Your task to perform on an android device: add a contact in the contacts app Image 0: 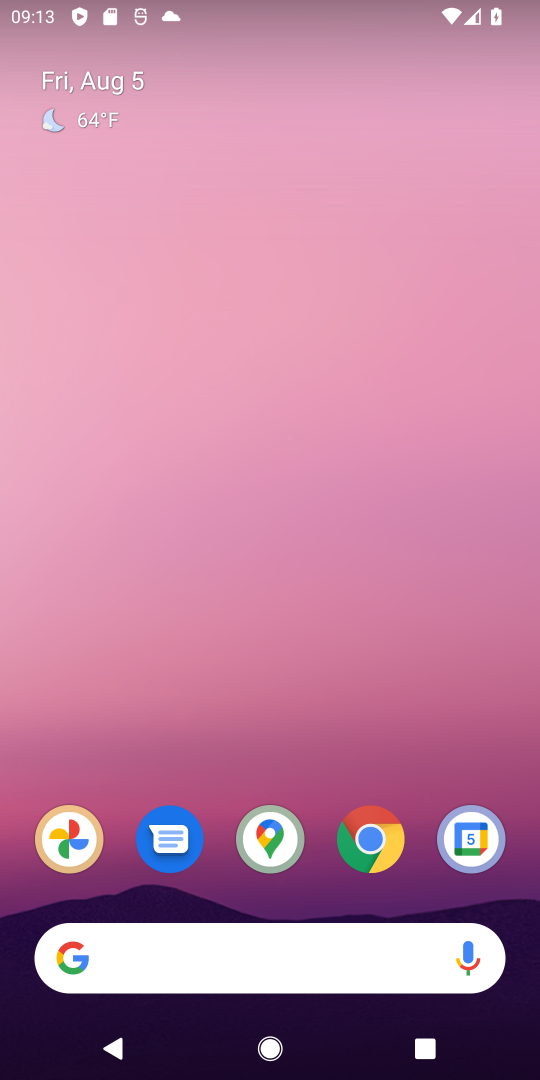
Step 0: drag from (308, 777) to (305, 10)
Your task to perform on an android device: add a contact in the contacts app Image 1: 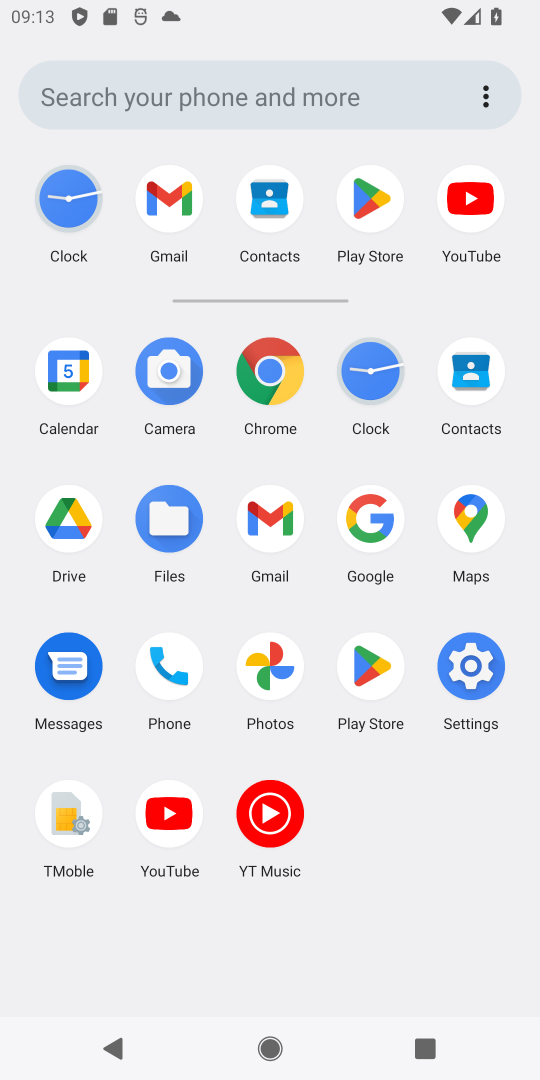
Step 1: click (476, 373)
Your task to perform on an android device: add a contact in the contacts app Image 2: 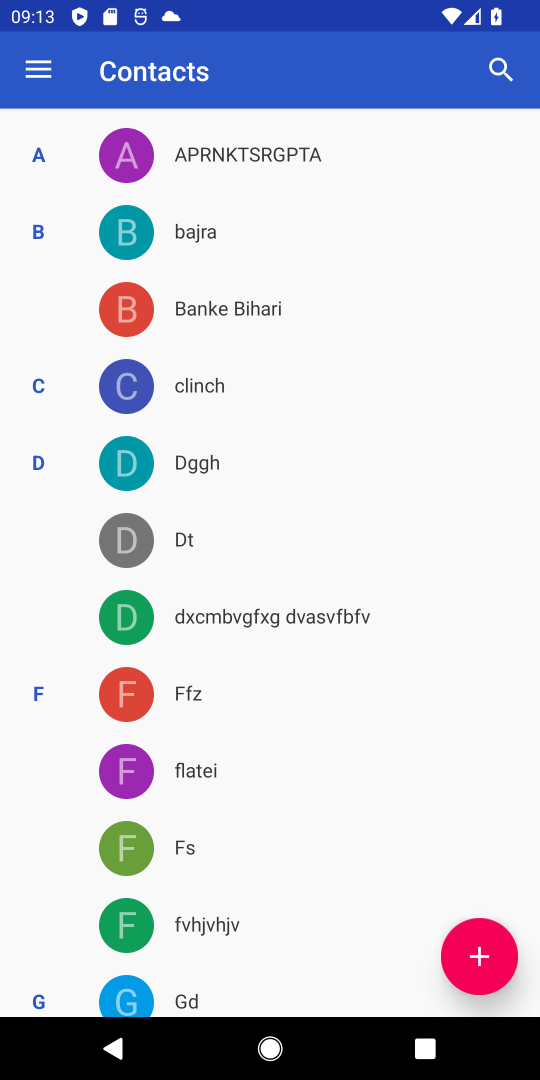
Step 2: click (480, 945)
Your task to perform on an android device: add a contact in the contacts app Image 3: 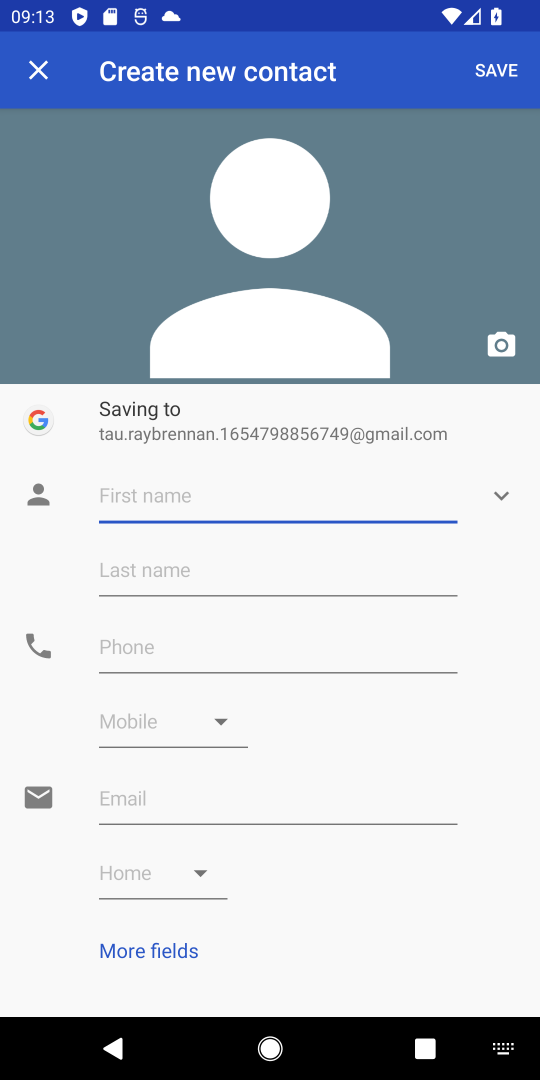
Step 3: type "uiiuui"
Your task to perform on an android device: add a contact in the contacts app Image 4: 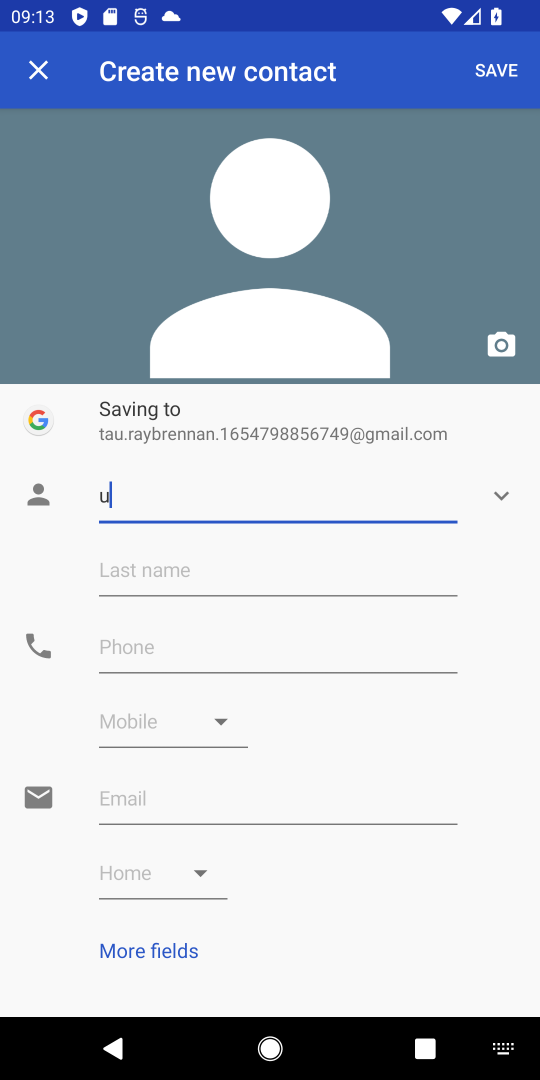
Step 4: type ""
Your task to perform on an android device: add a contact in the contacts app Image 5: 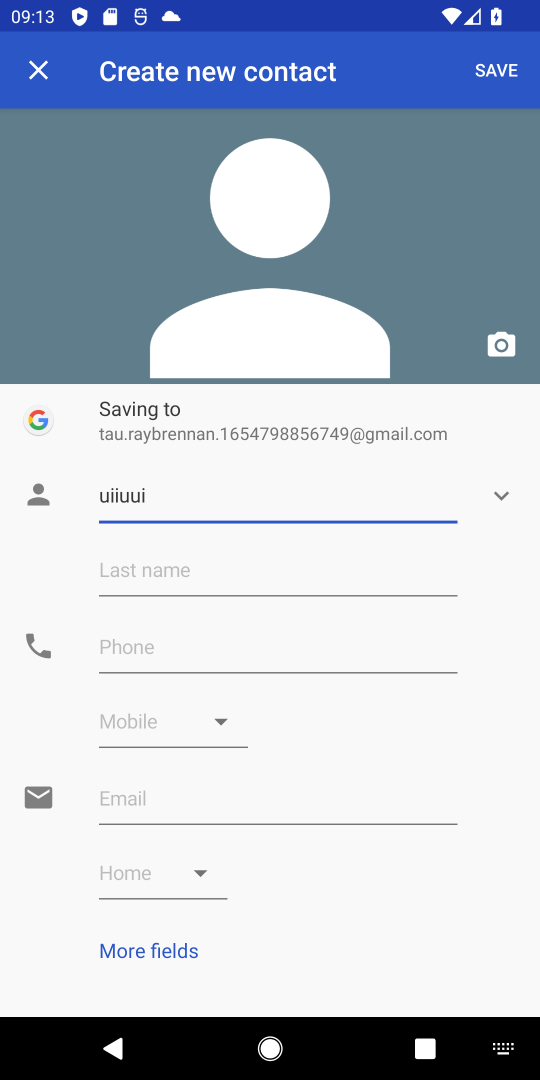
Step 5: click (175, 664)
Your task to perform on an android device: add a contact in the contacts app Image 6: 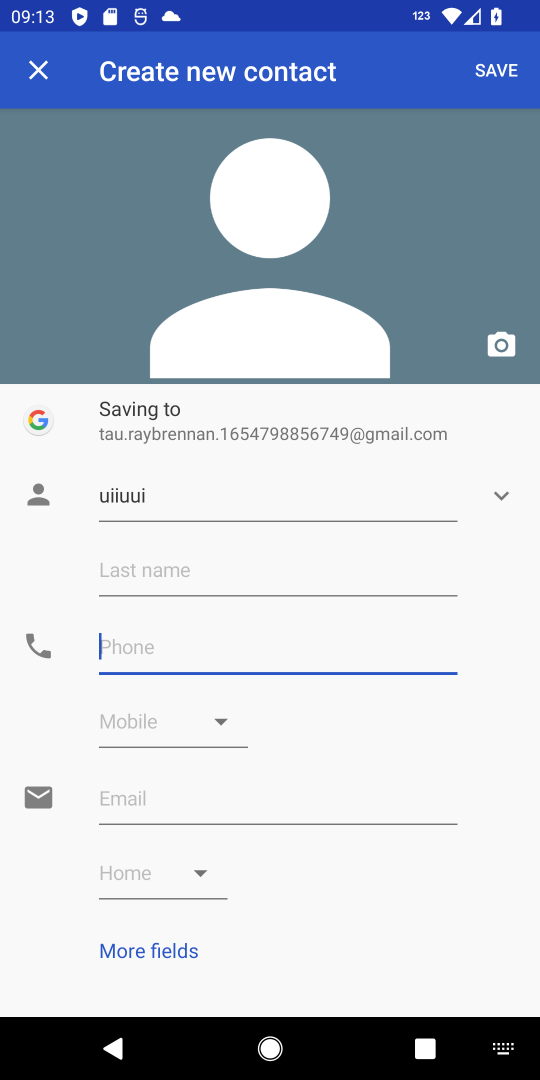
Step 6: type "688787"
Your task to perform on an android device: add a contact in the contacts app Image 7: 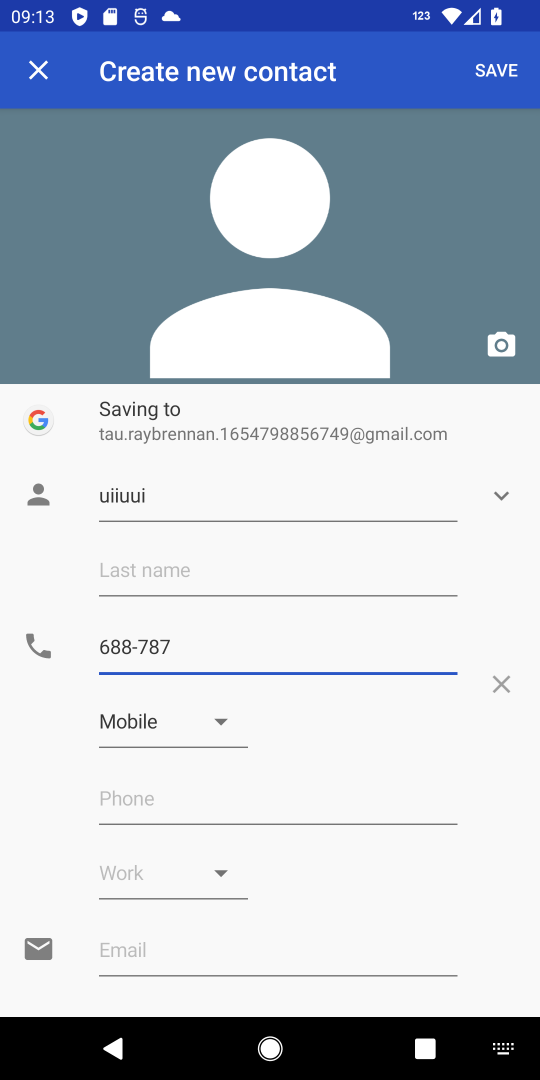
Step 7: click (502, 71)
Your task to perform on an android device: add a contact in the contacts app Image 8: 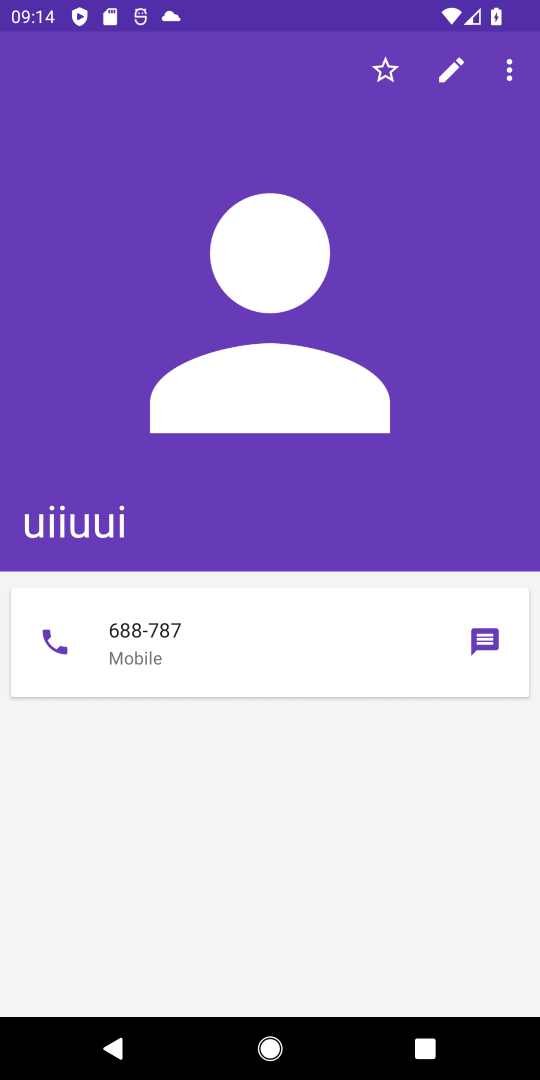
Step 8: task complete